Your task to perform on an android device: open app "Google Drive" Image 0: 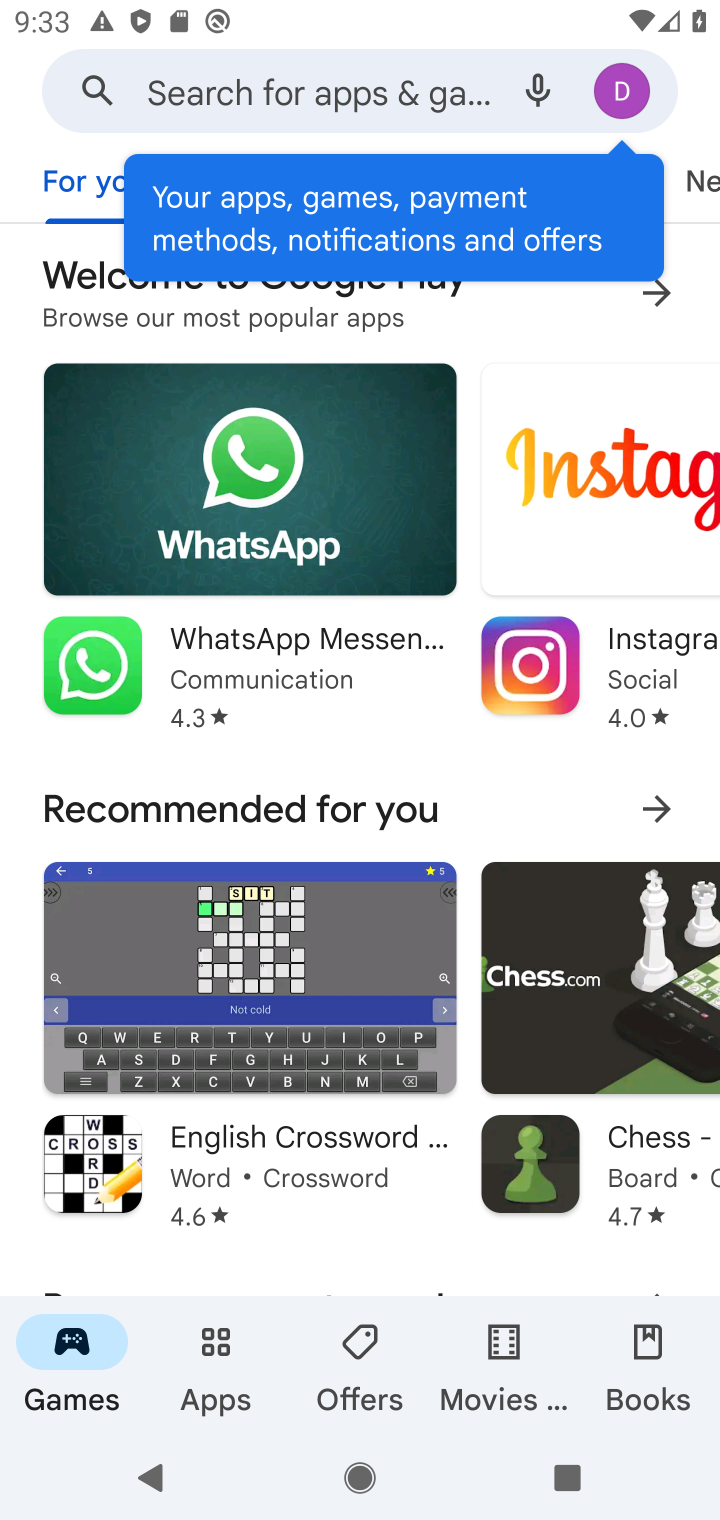
Step 0: click (276, 87)
Your task to perform on an android device: open app "Google Drive" Image 1: 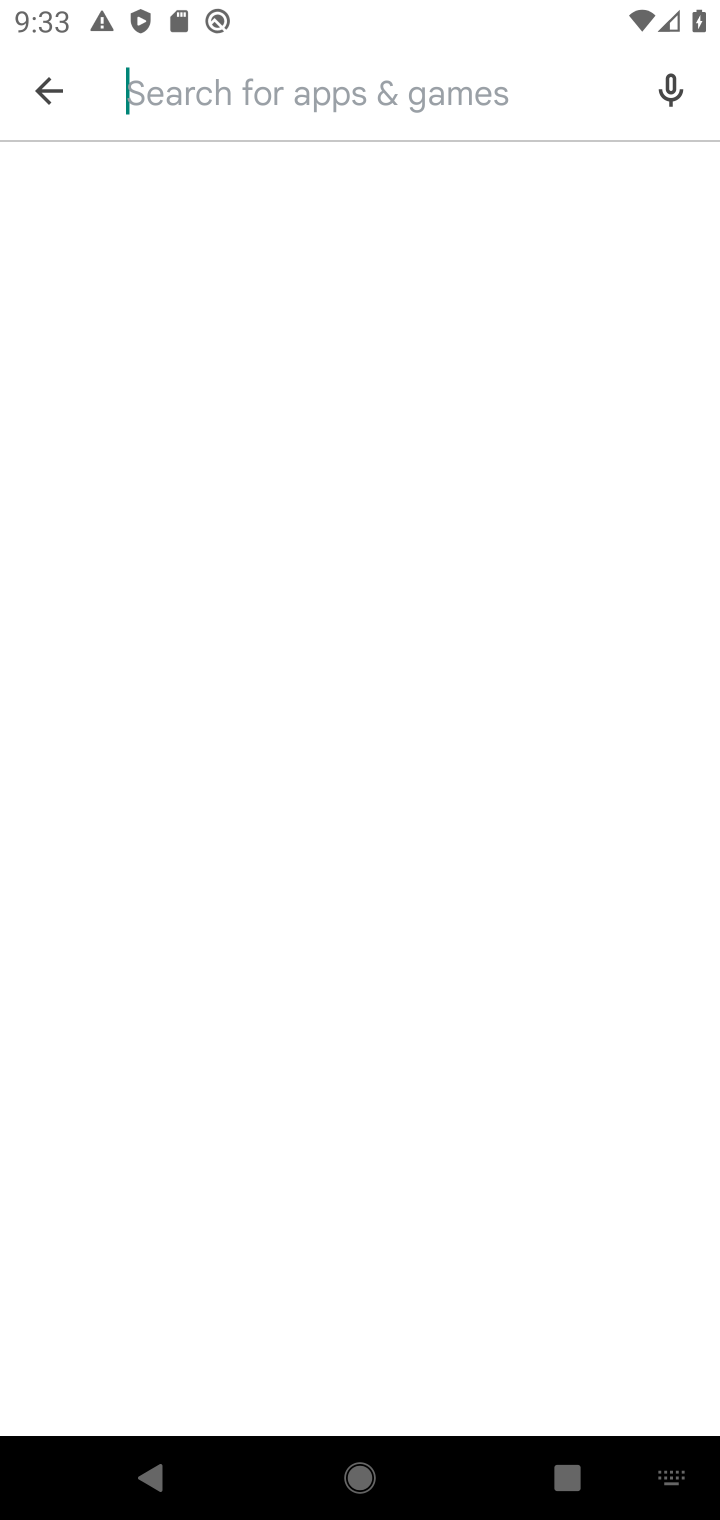
Step 1: type "google drive "
Your task to perform on an android device: open app "Google Drive" Image 2: 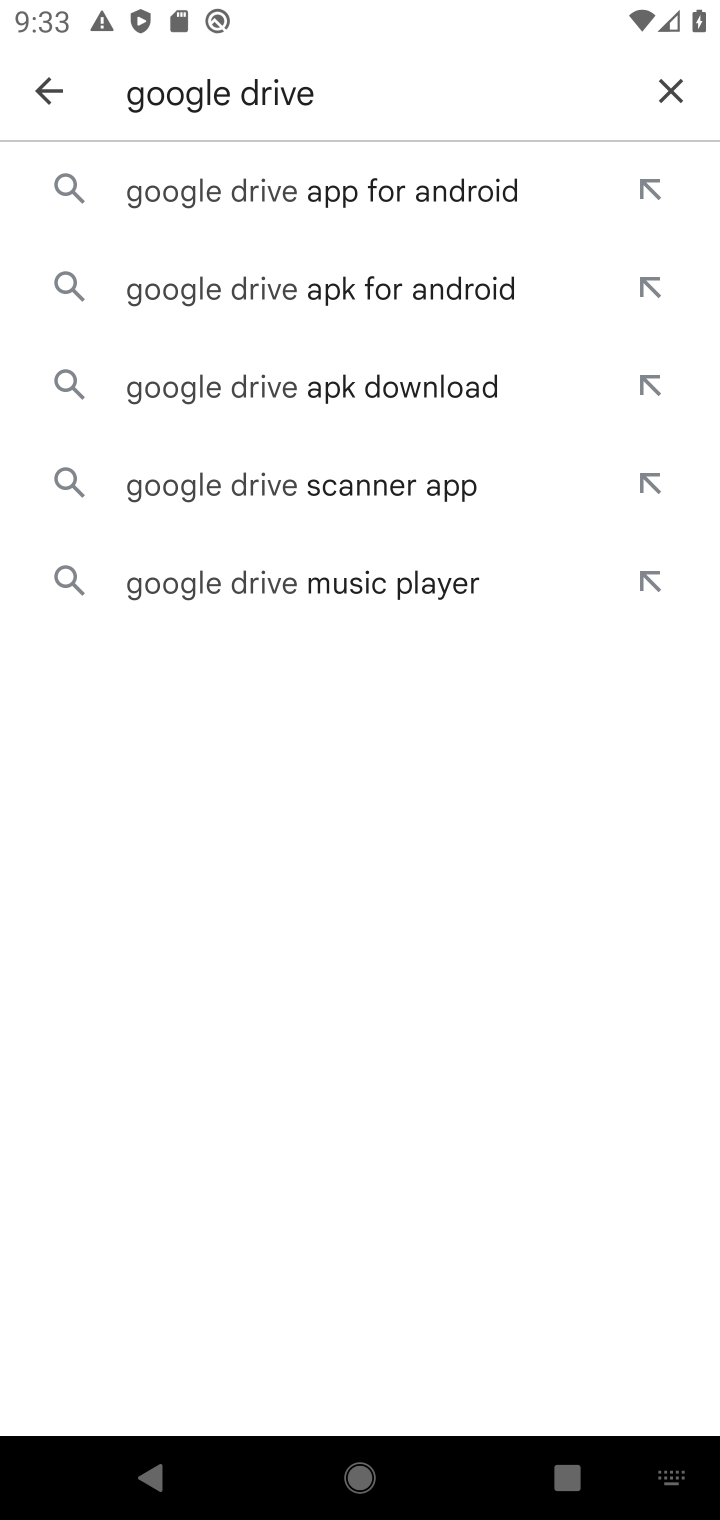
Step 2: click (205, 201)
Your task to perform on an android device: open app "Google Drive" Image 3: 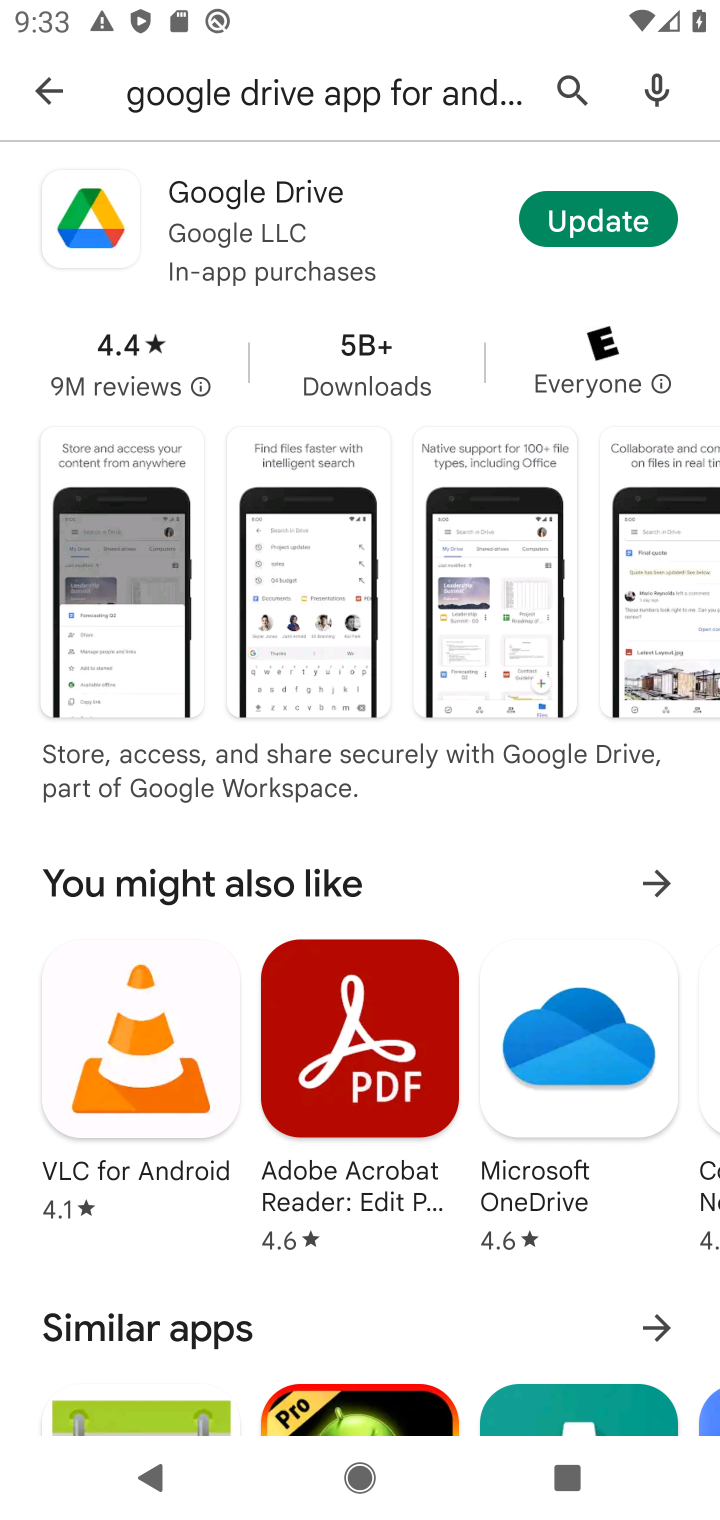
Step 3: click (312, 235)
Your task to perform on an android device: open app "Google Drive" Image 4: 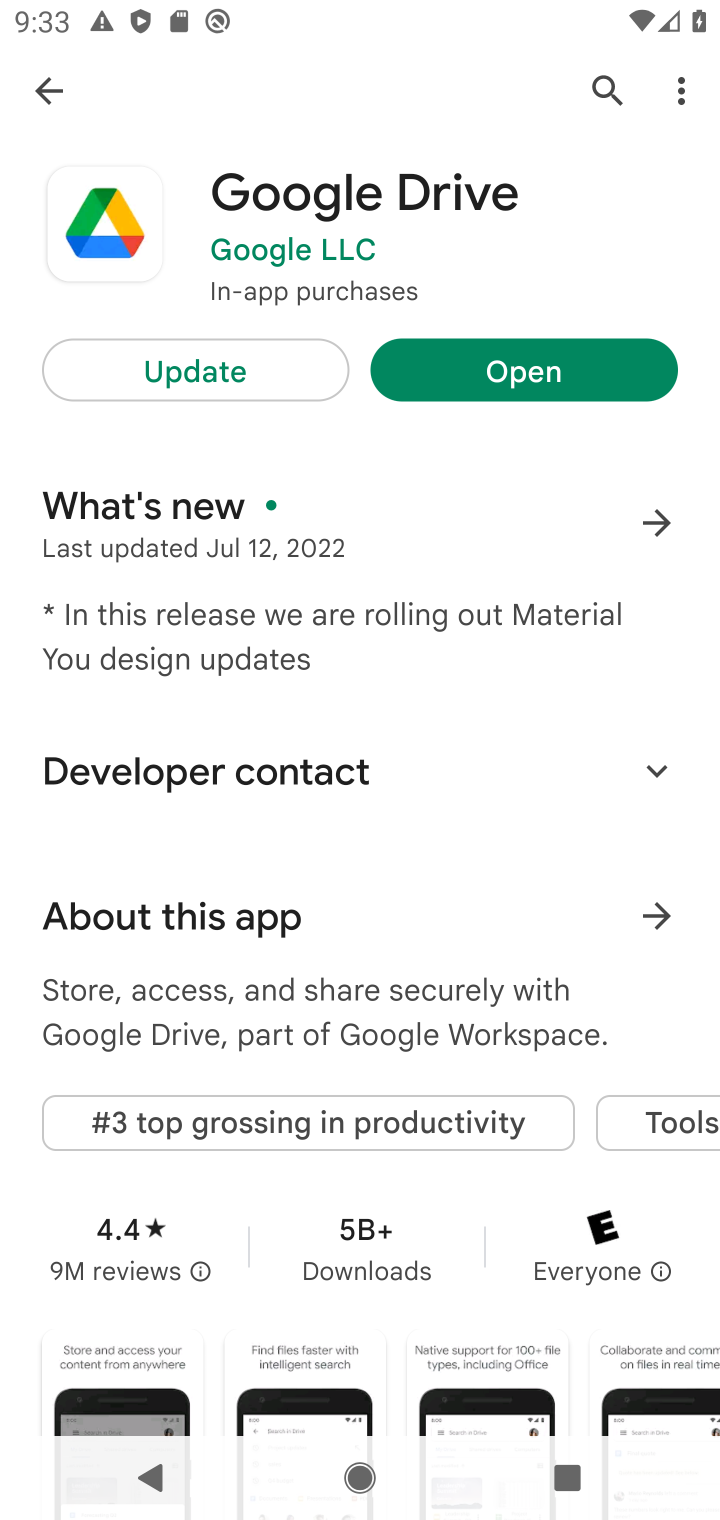
Step 4: click (485, 370)
Your task to perform on an android device: open app "Google Drive" Image 5: 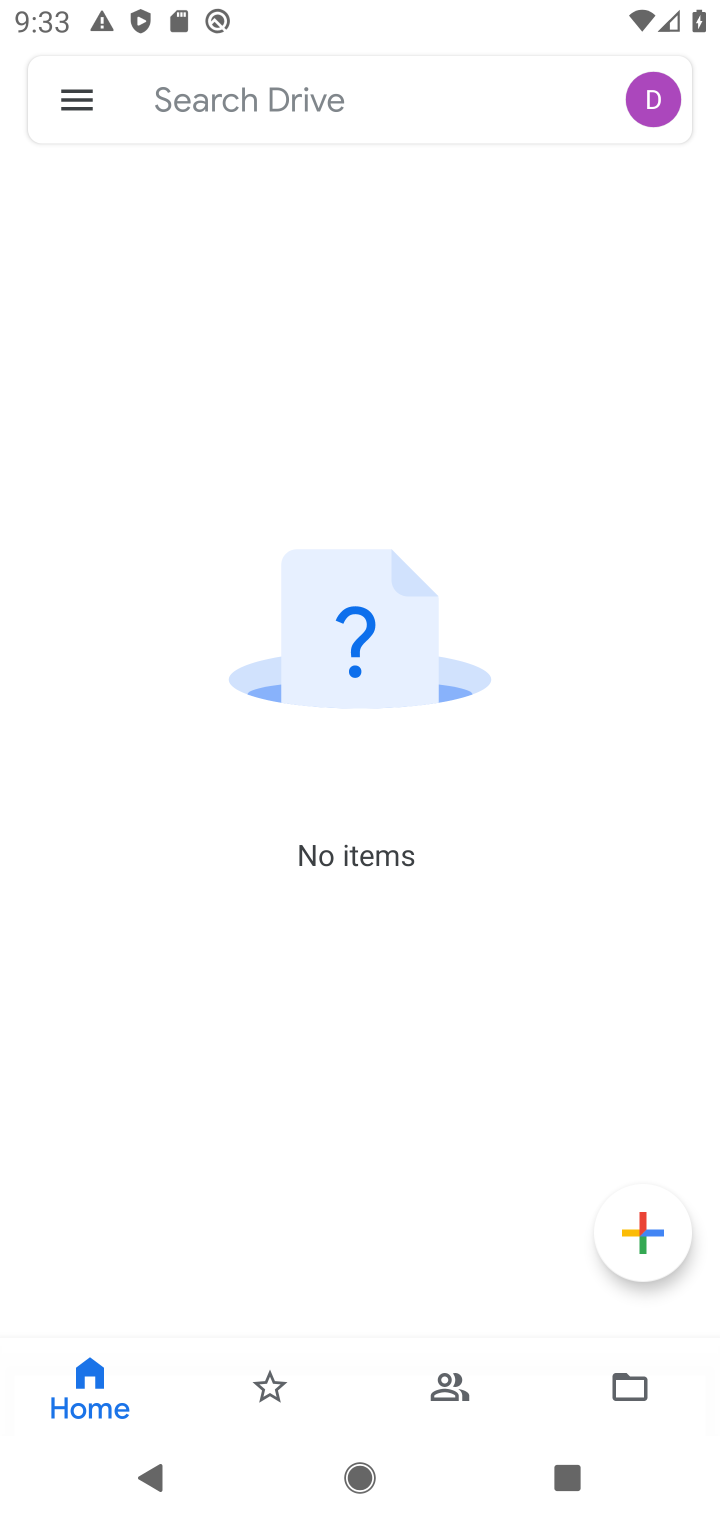
Step 5: task complete